Your task to perform on an android device: Find coffee shops on Maps Image 0: 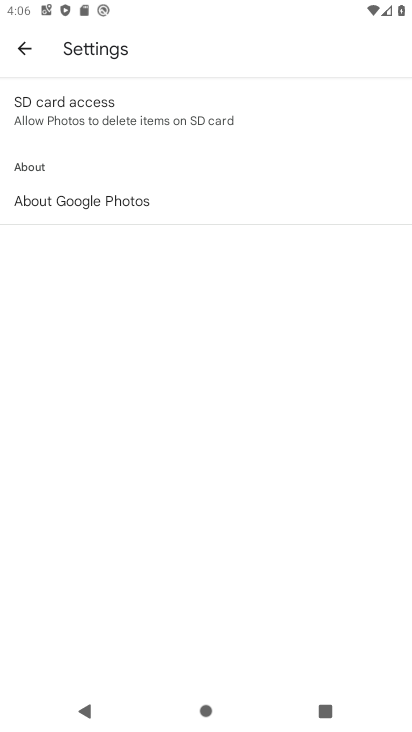
Step 0: press home button
Your task to perform on an android device: Find coffee shops on Maps Image 1: 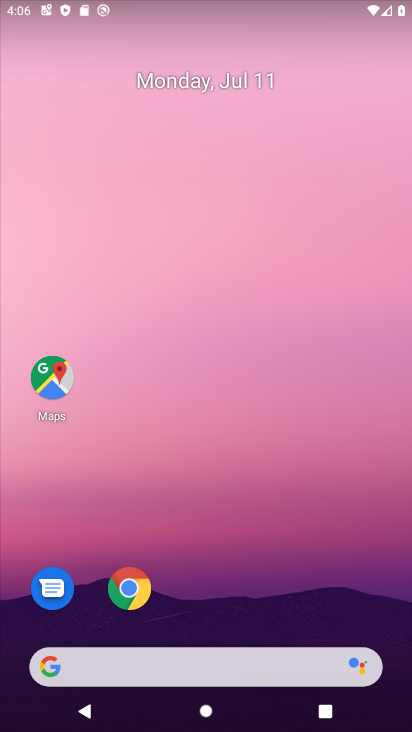
Step 1: drag from (359, 596) to (358, 146)
Your task to perform on an android device: Find coffee shops on Maps Image 2: 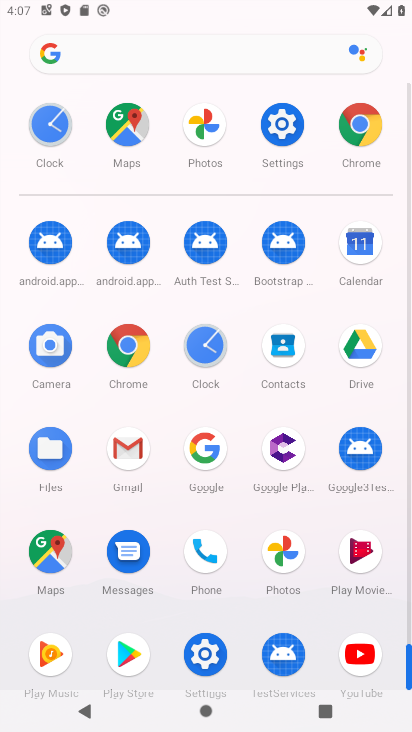
Step 2: click (55, 538)
Your task to perform on an android device: Find coffee shops on Maps Image 3: 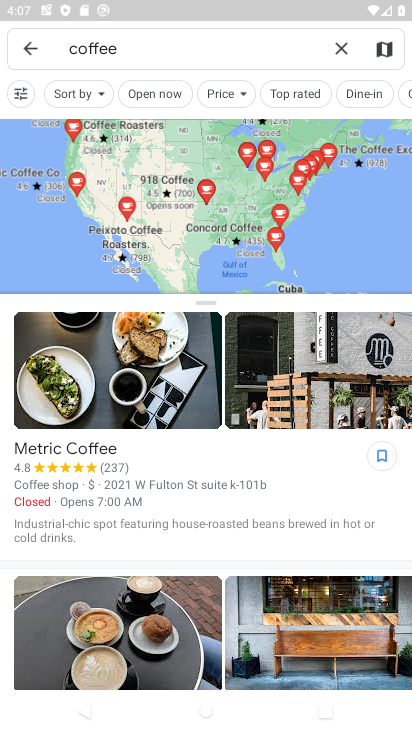
Step 3: task complete